Your task to perform on an android device: toggle airplane mode Image 0: 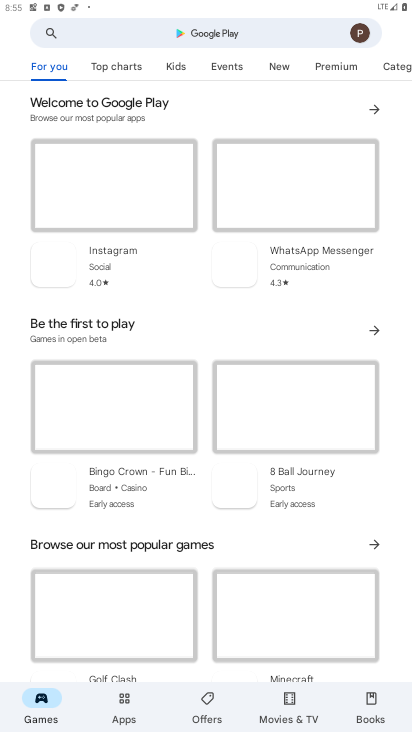
Step 0: drag from (219, 8) to (212, 608)
Your task to perform on an android device: toggle airplane mode Image 1: 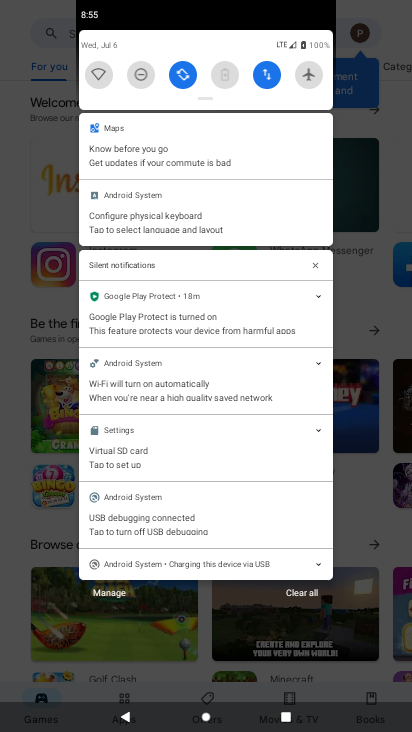
Step 1: click (299, 74)
Your task to perform on an android device: toggle airplane mode Image 2: 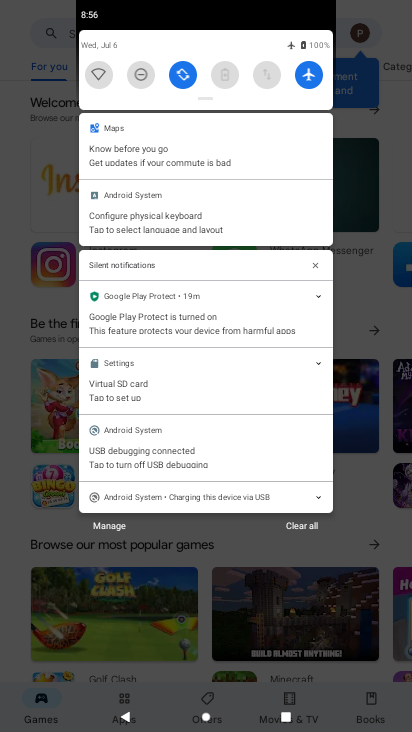
Step 2: click (299, 74)
Your task to perform on an android device: toggle airplane mode Image 3: 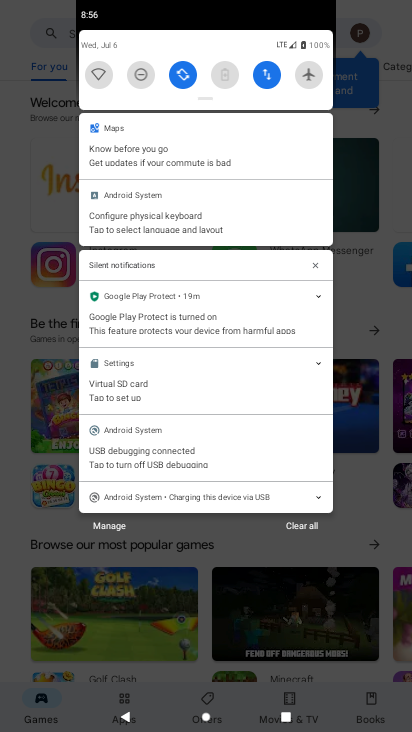
Step 3: task complete